Your task to perform on an android device: search for starred emails in the gmail app Image 0: 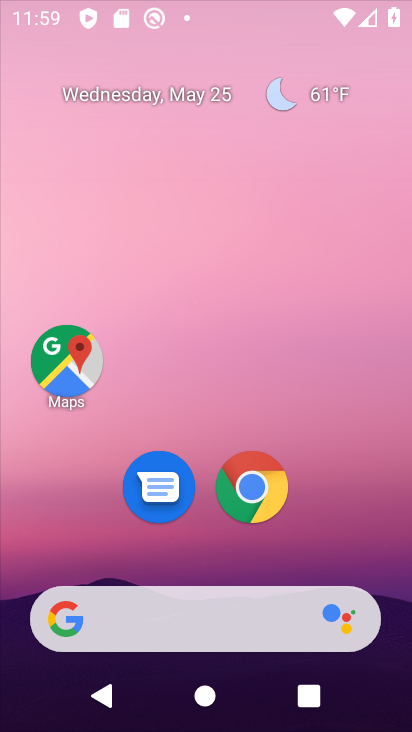
Step 0: press back button
Your task to perform on an android device: search for starred emails in the gmail app Image 1: 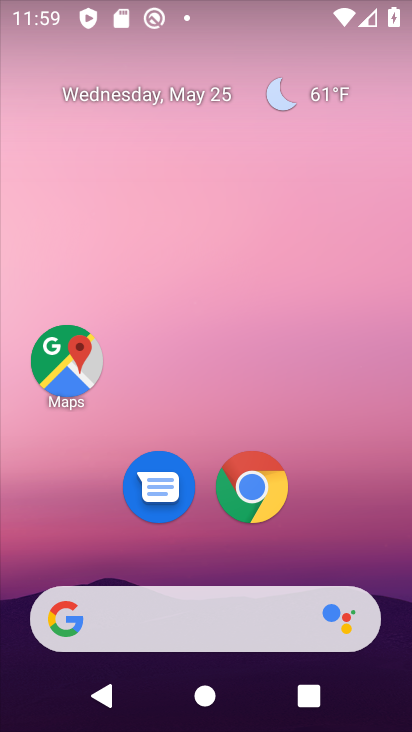
Step 1: drag from (264, 667) to (149, 77)
Your task to perform on an android device: search for starred emails in the gmail app Image 2: 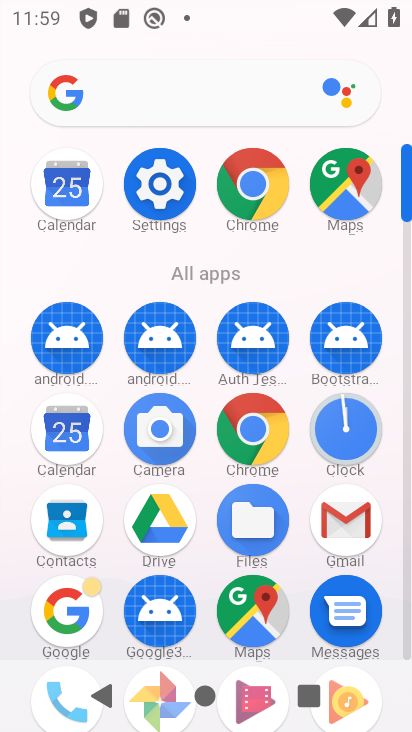
Step 2: click (343, 494)
Your task to perform on an android device: search for starred emails in the gmail app Image 3: 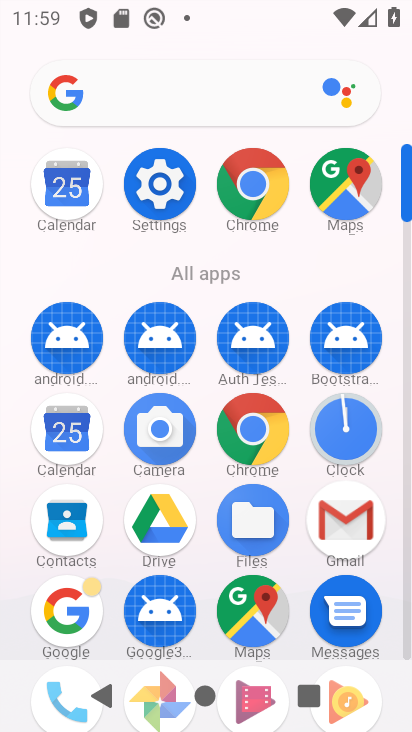
Step 3: click (343, 494)
Your task to perform on an android device: search for starred emails in the gmail app Image 4: 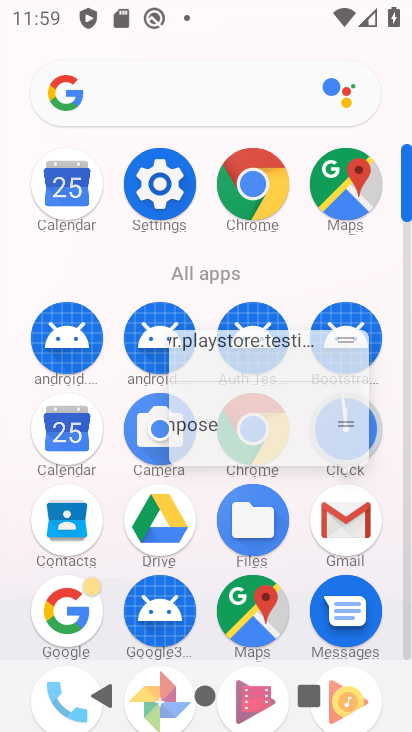
Step 4: click (343, 494)
Your task to perform on an android device: search for starred emails in the gmail app Image 5: 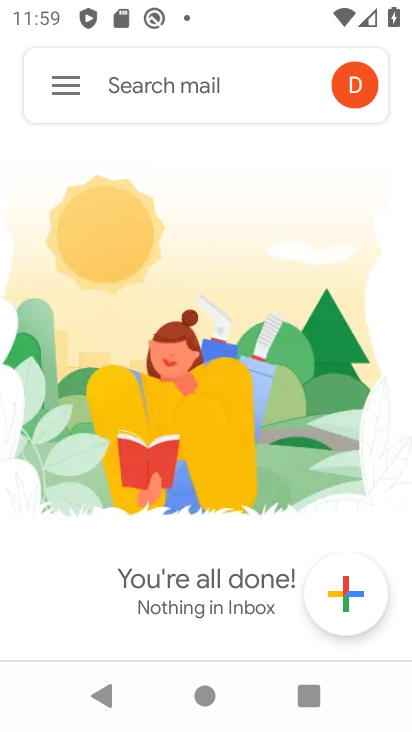
Step 5: click (67, 85)
Your task to perform on an android device: search for starred emails in the gmail app Image 6: 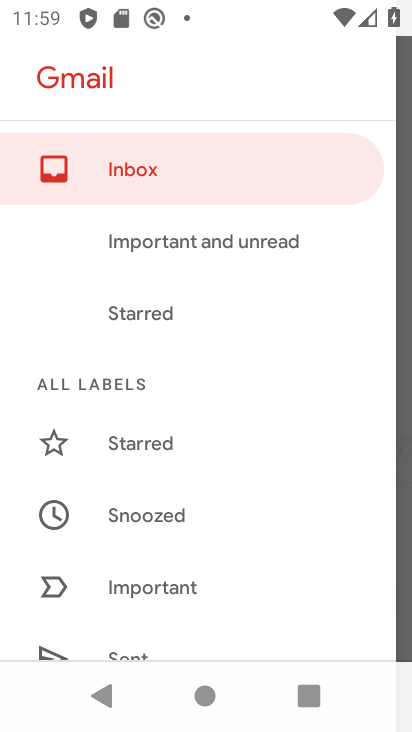
Step 6: drag from (175, 511) to (193, 196)
Your task to perform on an android device: search for starred emails in the gmail app Image 7: 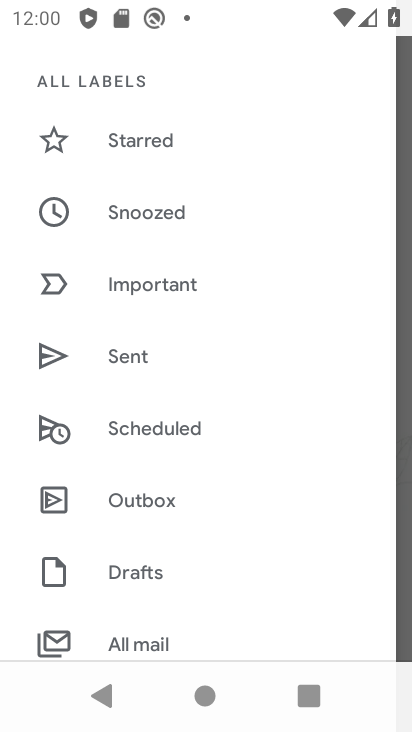
Step 7: click (167, 131)
Your task to perform on an android device: search for starred emails in the gmail app Image 8: 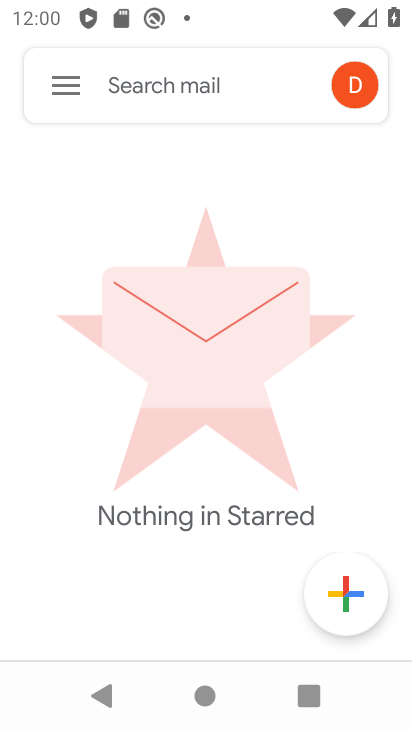
Step 8: task complete